Your task to perform on an android device: toggle notification dots Image 0: 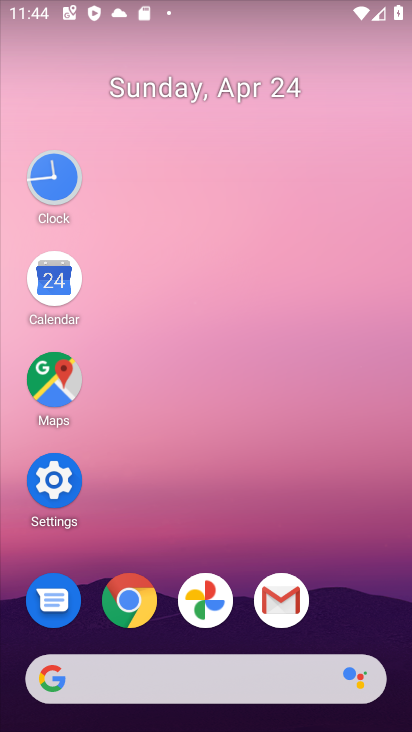
Step 0: click (51, 474)
Your task to perform on an android device: toggle notification dots Image 1: 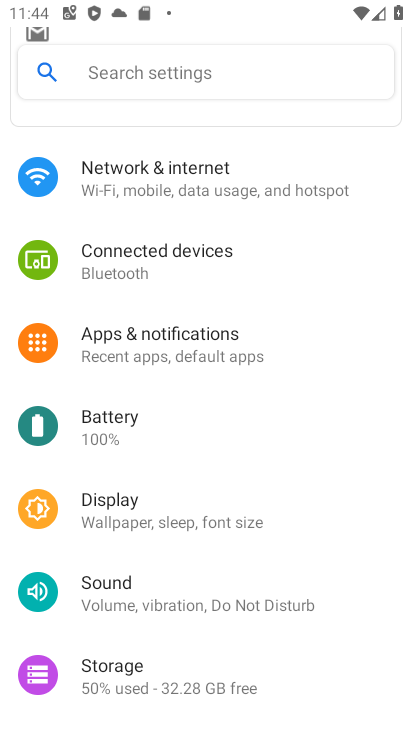
Step 1: click (166, 330)
Your task to perform on an android device: toggle notification dots Image 2: 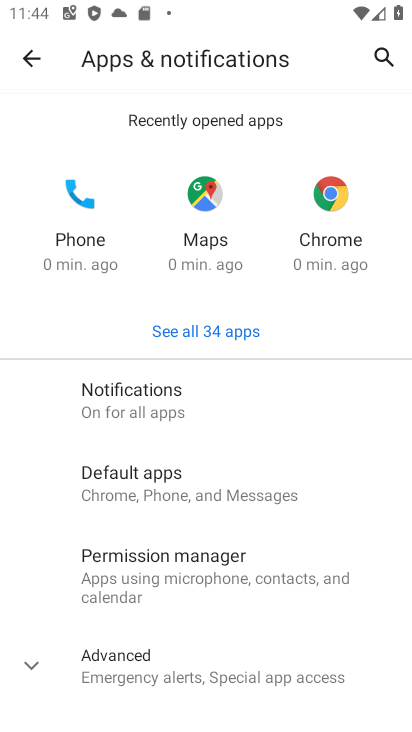
Step 2: click (127, 389)
Your task to perform on an android device: toggle notification dots Image 3: 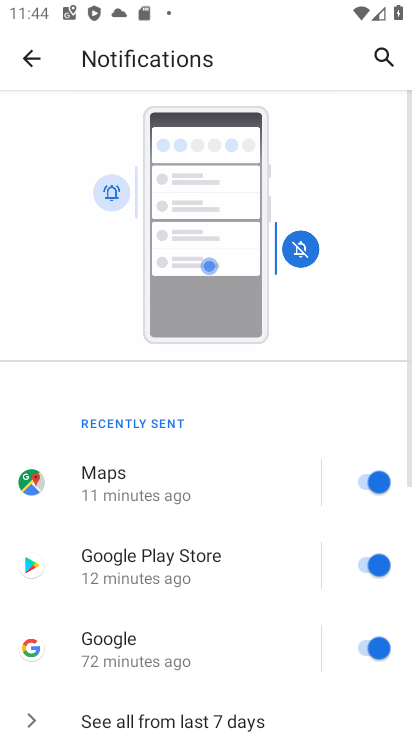
Step 3: drag from (248, 535) to (210, 72)
Your task to perform on an android device: toggle notification dots Image 4: 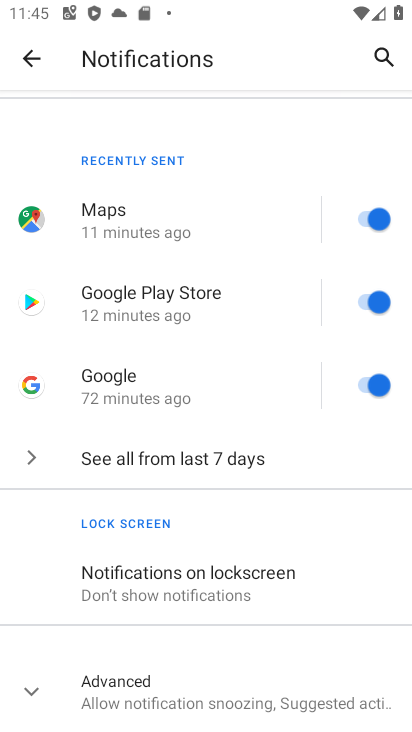
Step 4: click (68, 684)
Your task to perform on an android device: toggle notification dots Image 5: 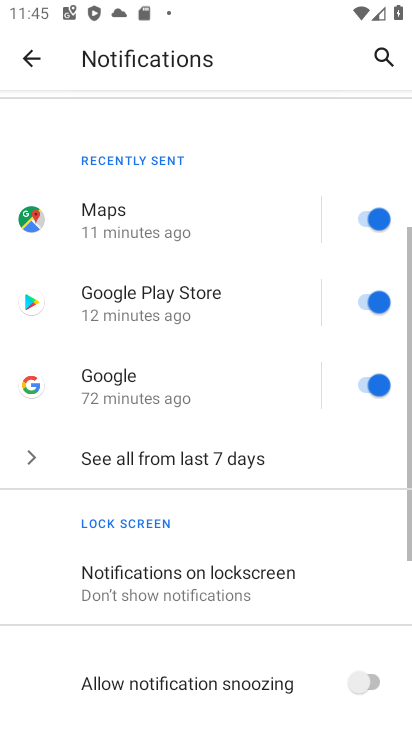
Step 5: drag from (343, 603) to (277, 276)
Your task to perform on an android device: toggle notification dots Image 6: 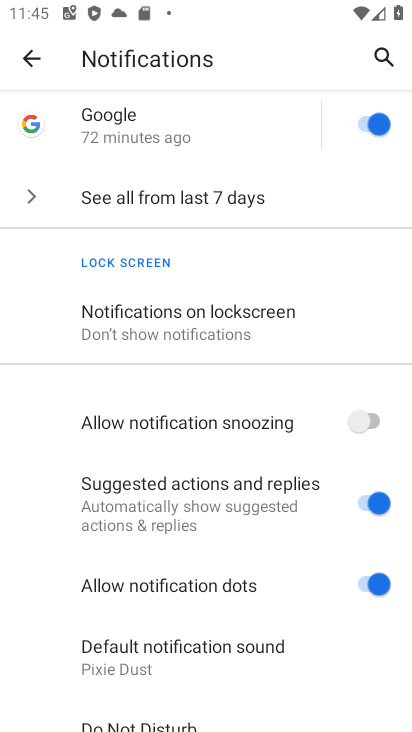
Step 6: click (374, 575)
Your task to perform on an android device: toggle notification dots Image 7: 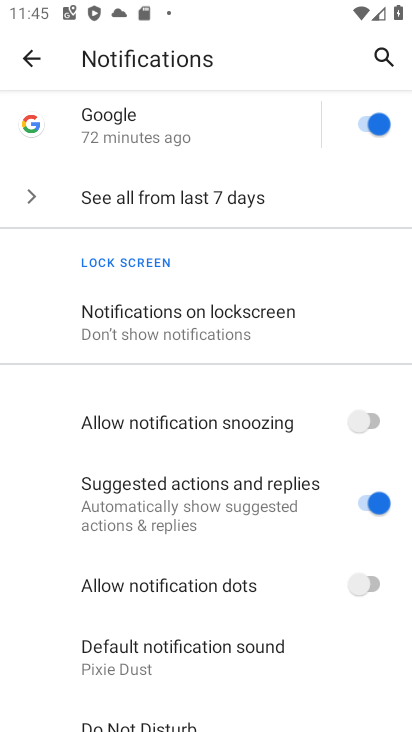
Step 7: task complete